Your task to perform on an android device: Open ESPN.com Image 0: 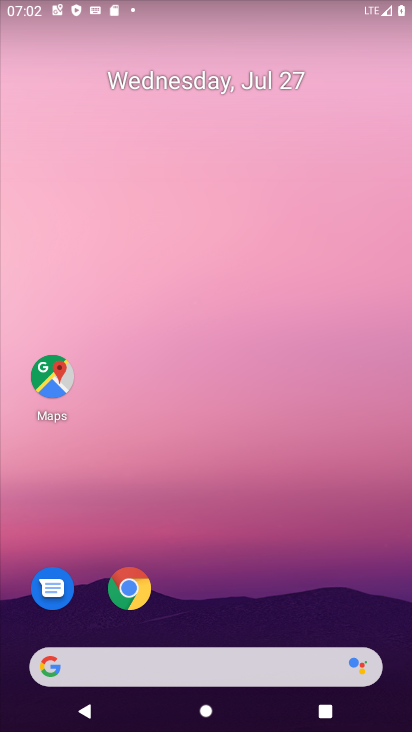
Step 0: drag from (294, 657) to (313, 0)
Your task to perform on an android device: Open ESPN.com Image 1: 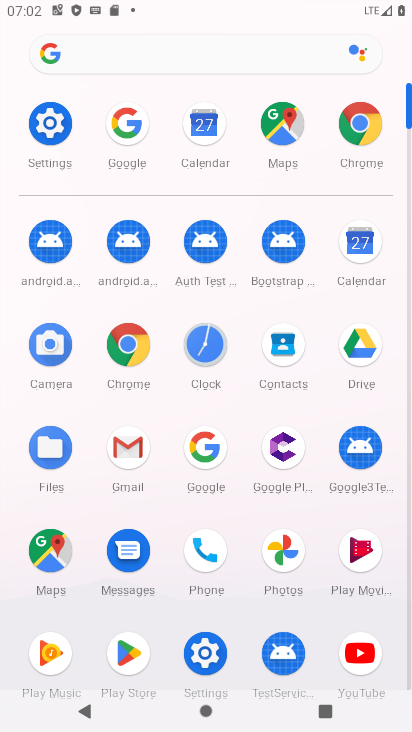
Step 1: click (141, 336)
Your task to perform on an android device: Open ESPN.com Image 2: 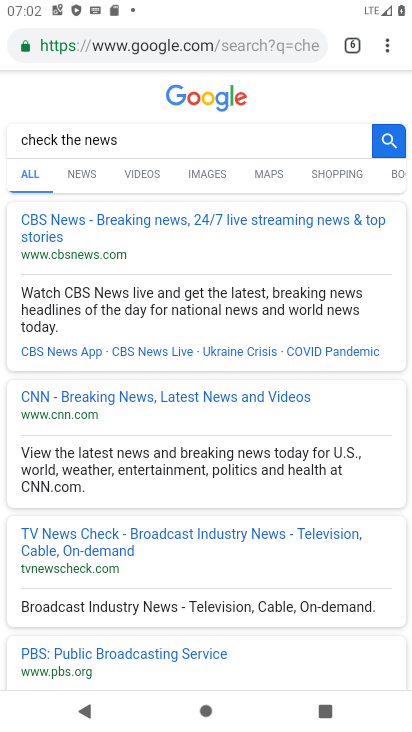
Step 2: click (165, 44)
Your task to perform on an android device: Open ESPN.com Image 3: 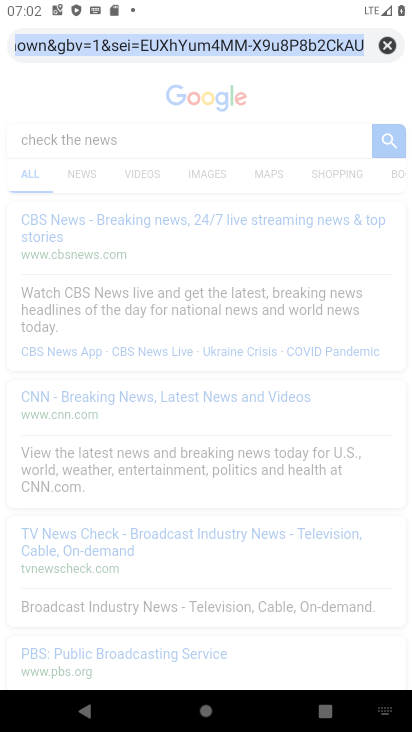
Step 3: type "espn.com"
Your task to perform on an android device: Open ESPN.com Image 4: 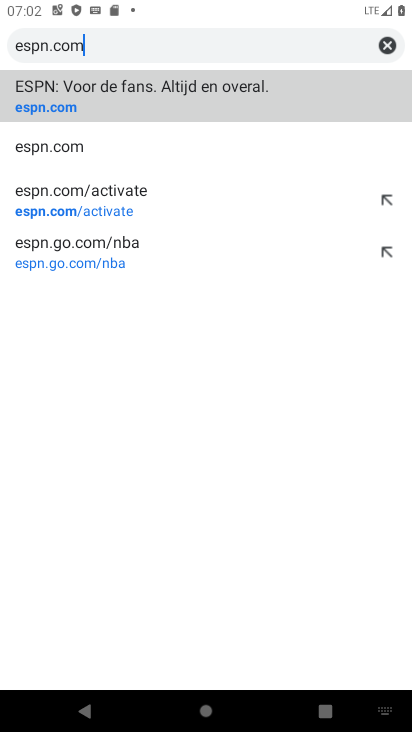
Step 4: click (138, 86)
Your task to perform on an android device: Open ESPN.com Image 5: 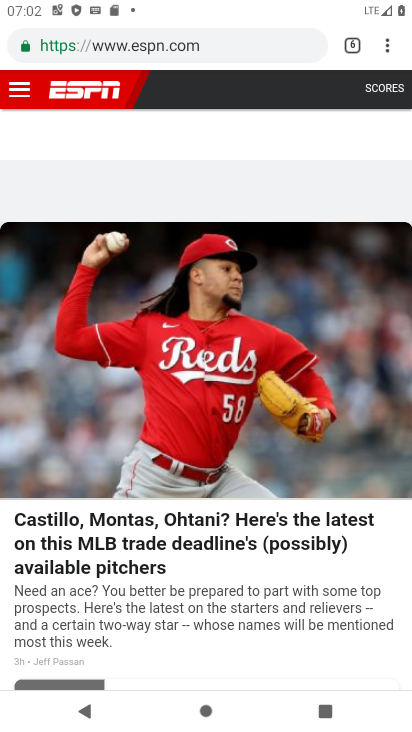
Step 5: task complete